Your task to perform on an android device: Open settings Image 0: 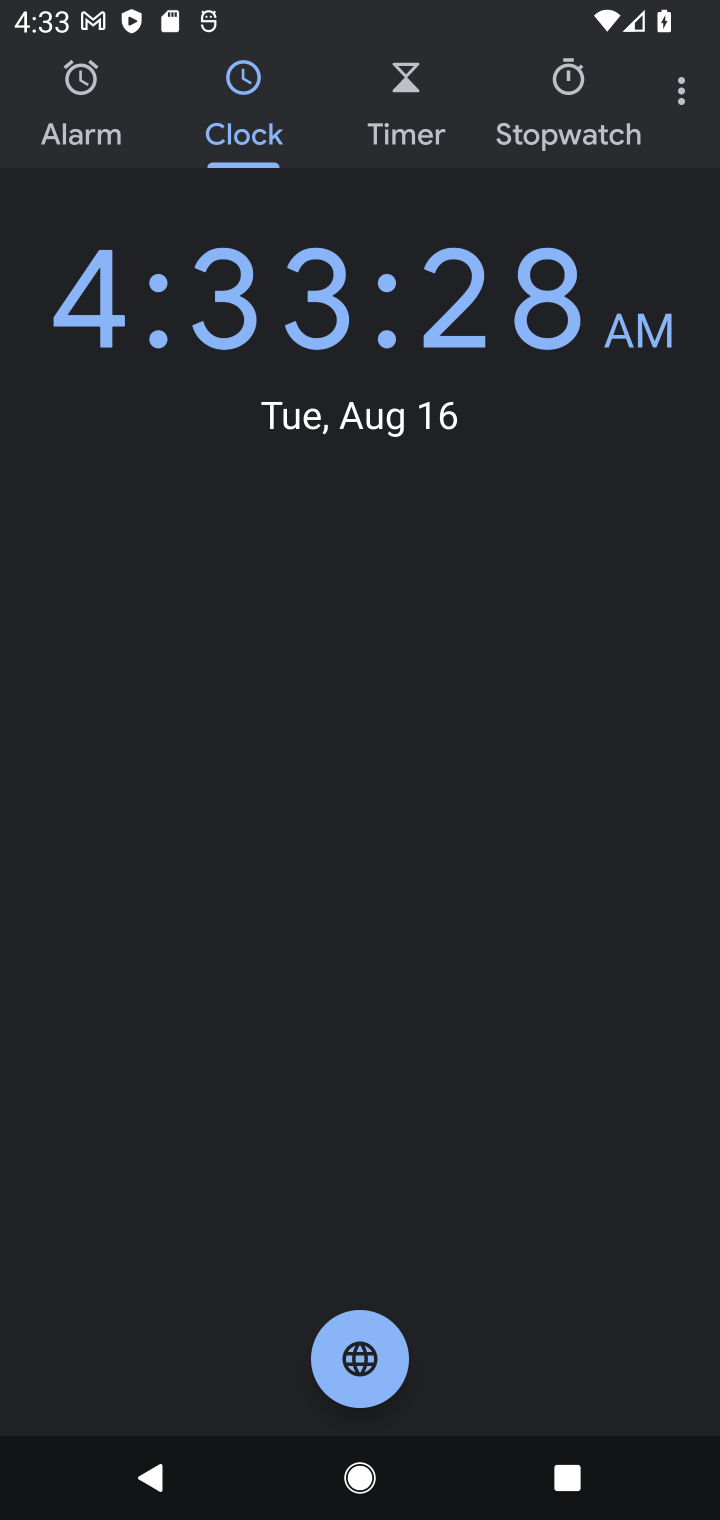
Step 0: press home button
Your task to perform on an android device: Open settings Image 1: 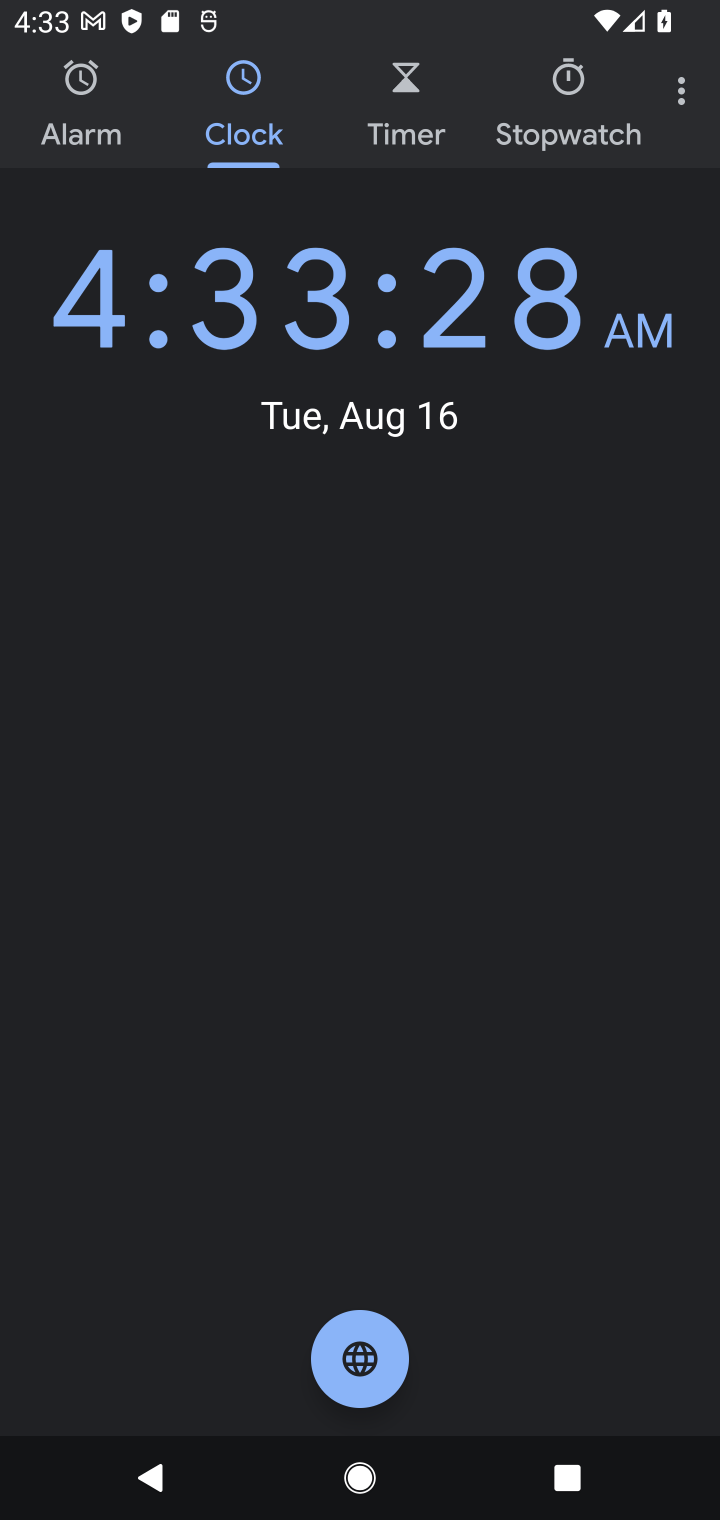
Step 1: press home button
Your task to perform on an android device: Open settings Image 2: 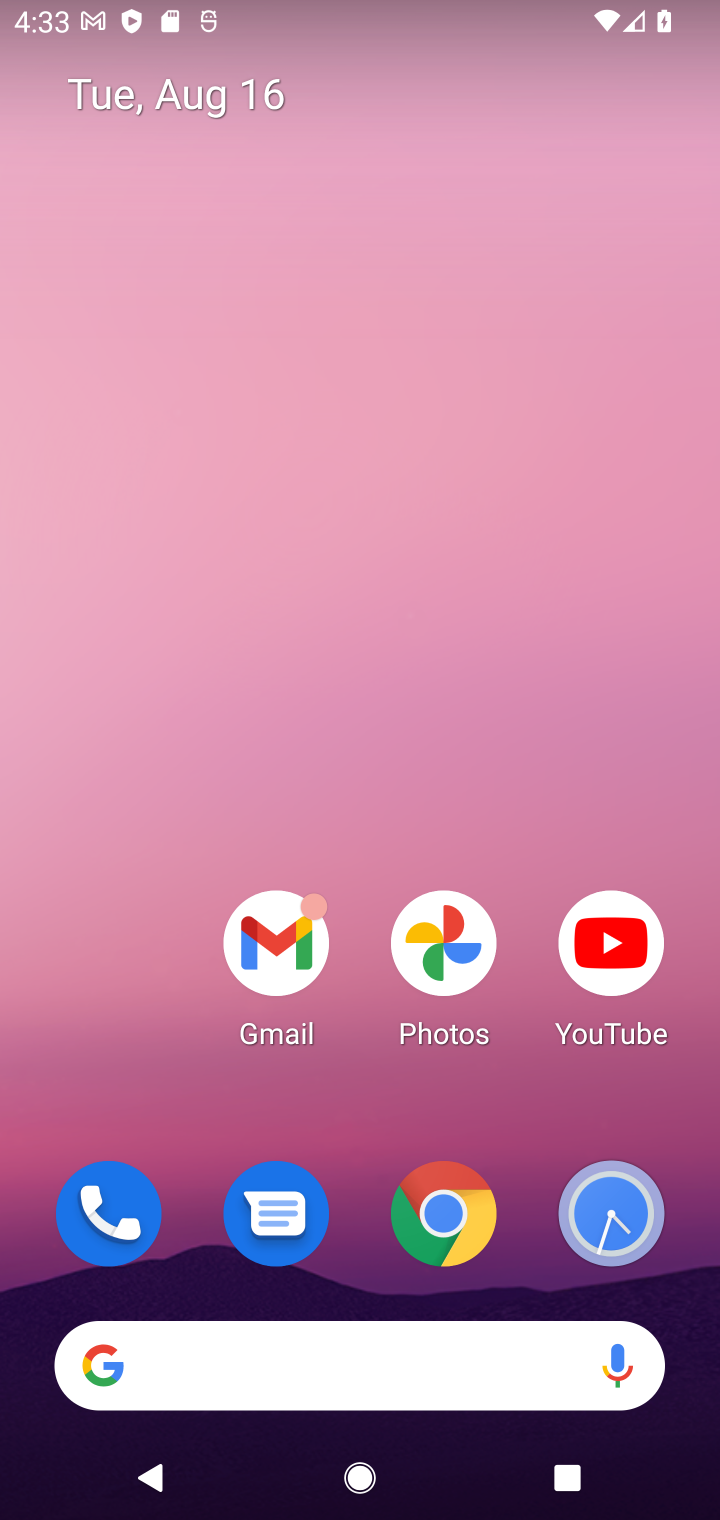
Step 2: drag from (353, 1114) to (428, 75)
Your task to perform on an android device: Open settings Image 3: 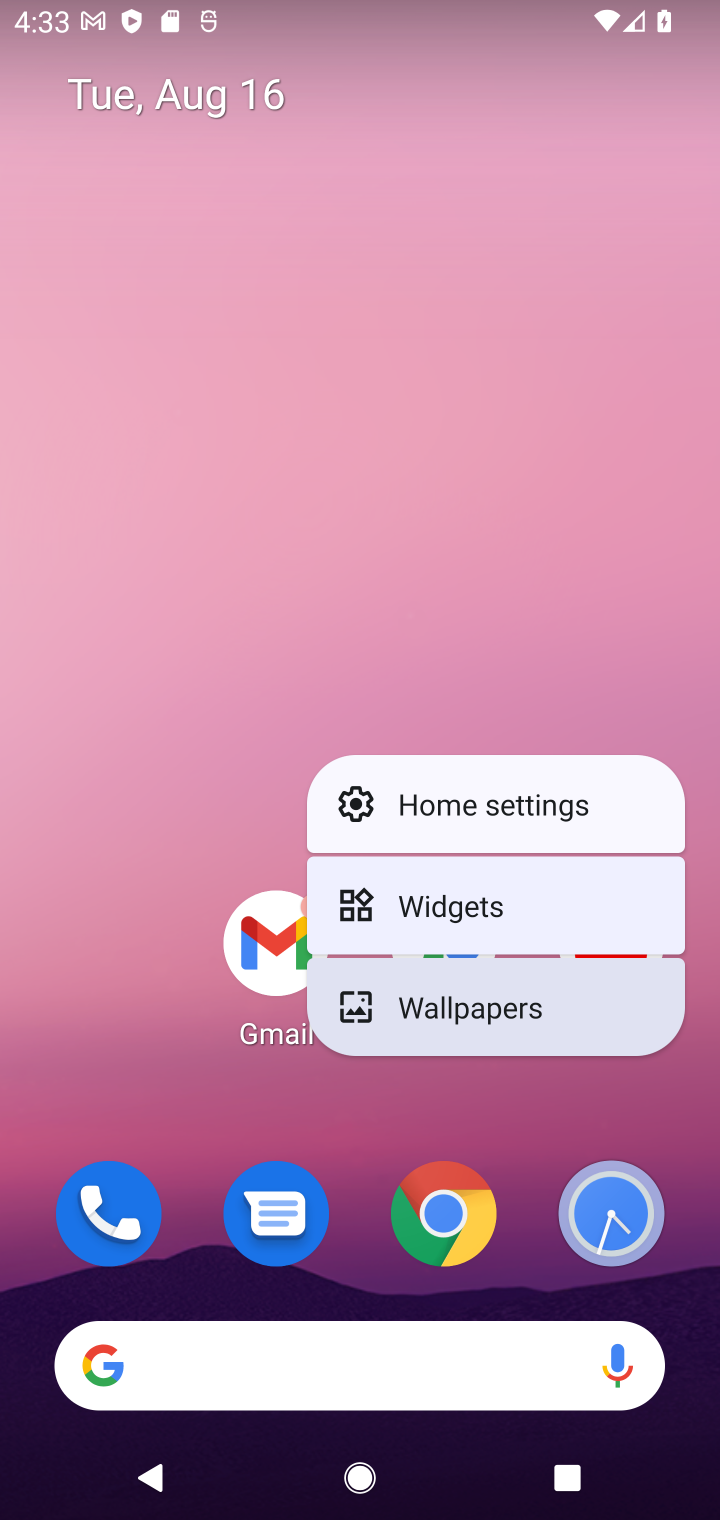
Step 3: click (238, 570)
Your task to perform on an android device: Open settings Image 4: 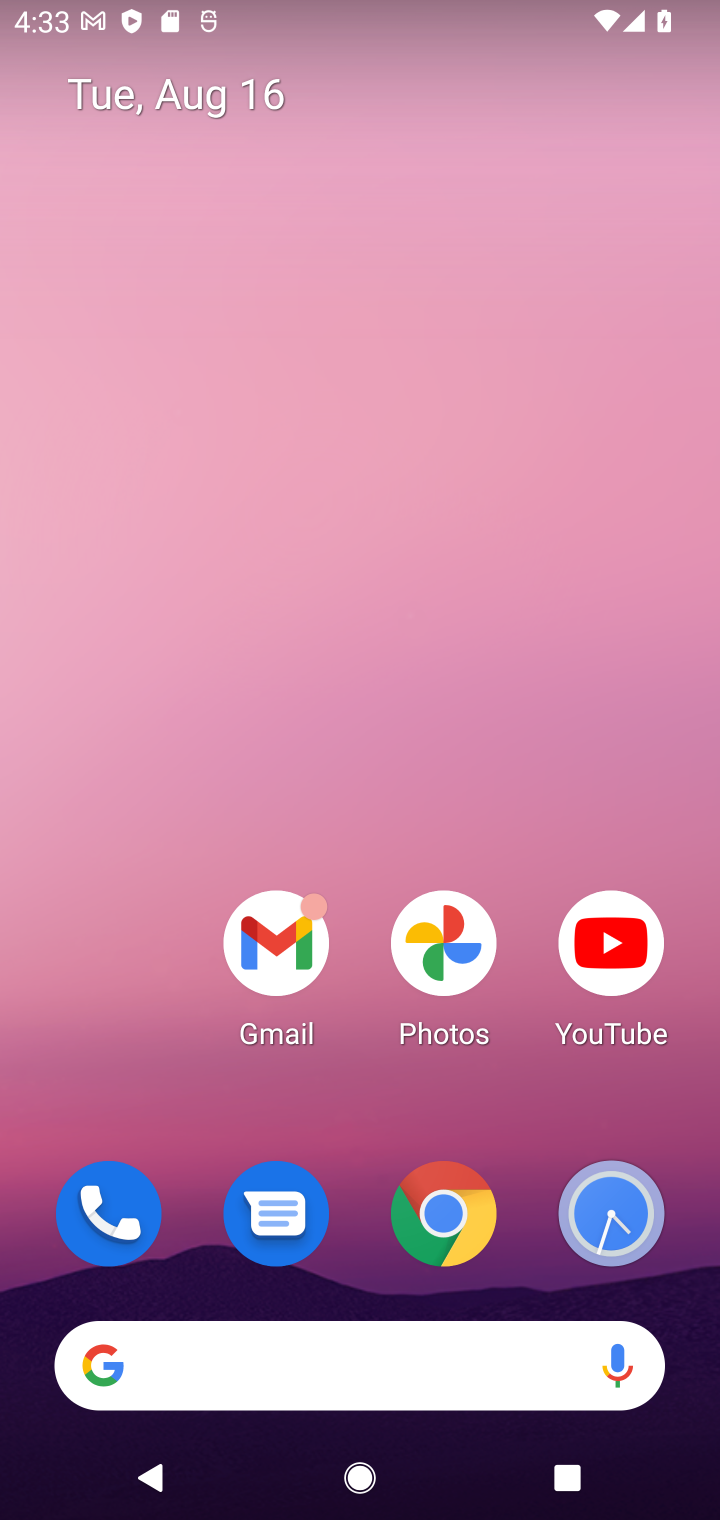
Step 4: drag from (203, 743) to (201, 40)
Your task to perform on an android device: Open settings Image 5: 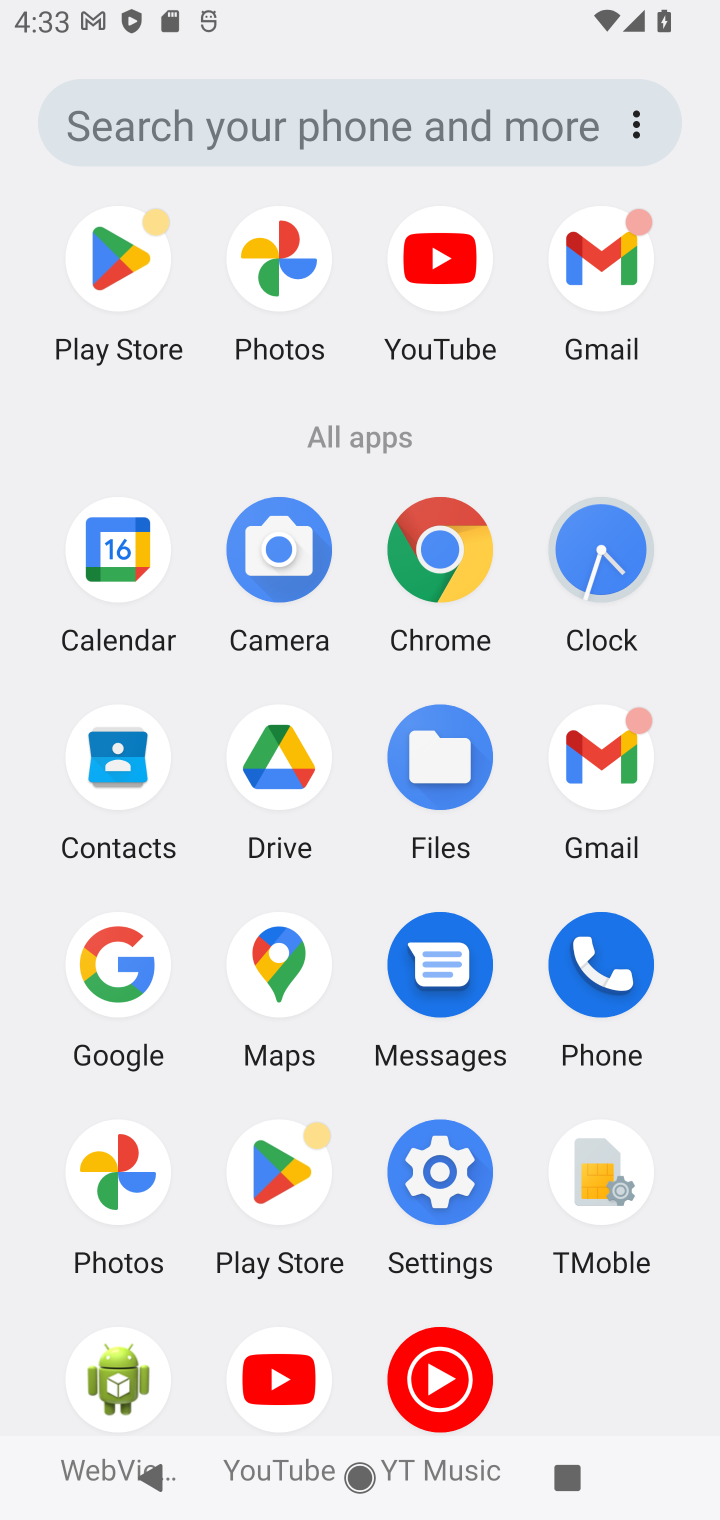
Step 5: click (437, 1174)
Your task to perform on an android device: Open settings Image 6: 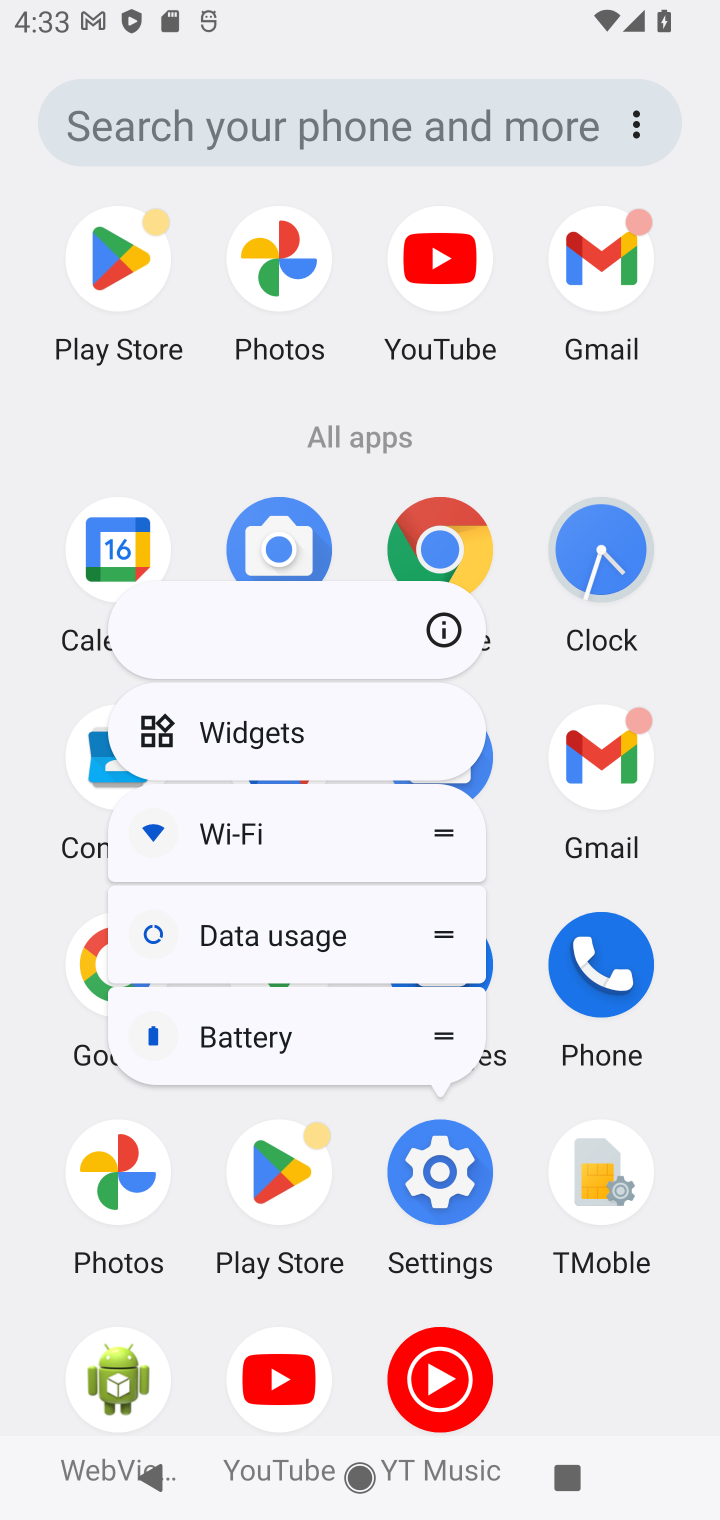
Step 6: click (435, 1165)
Your task to perform on an android device: Open settings Image 7: 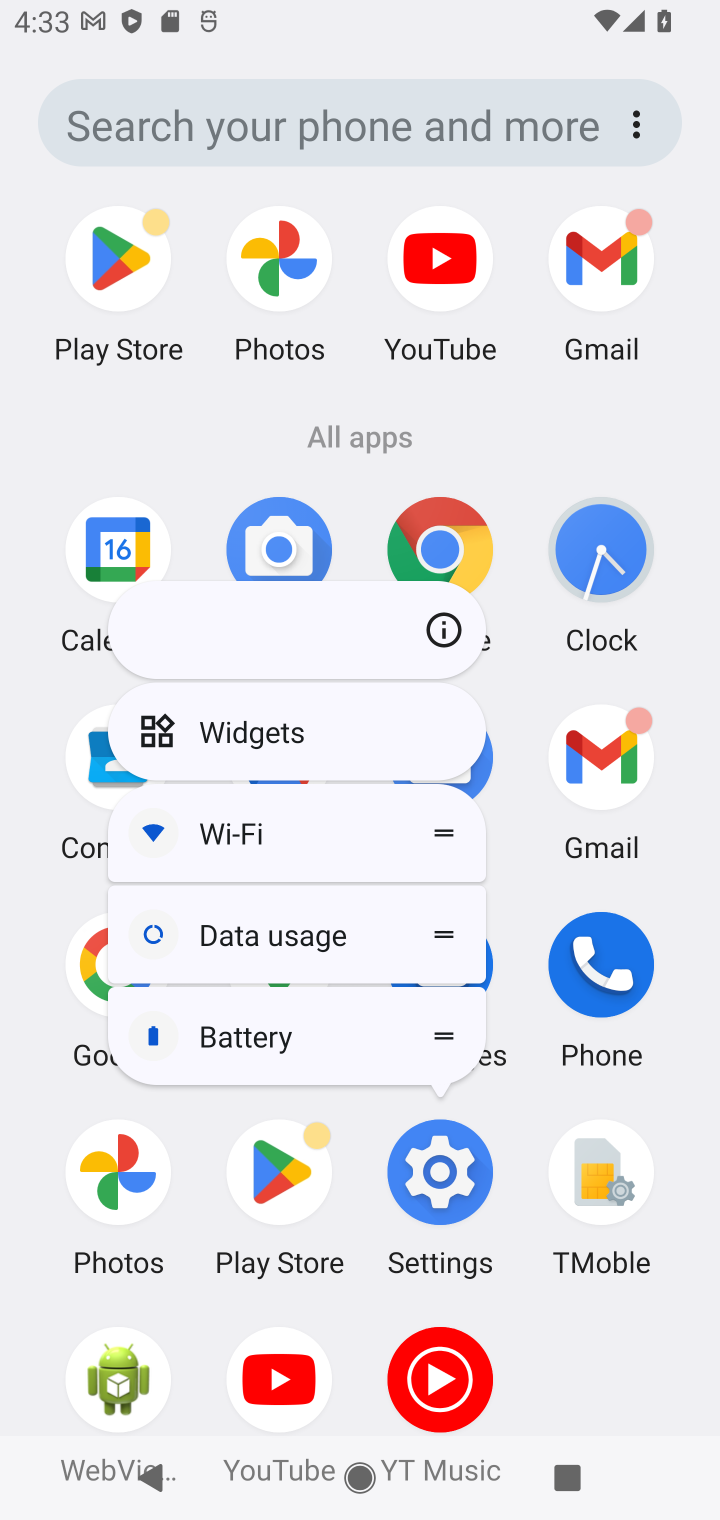
Step 7: click (437, 1167)
Your task to perform on an android device: Open settings Image 8: 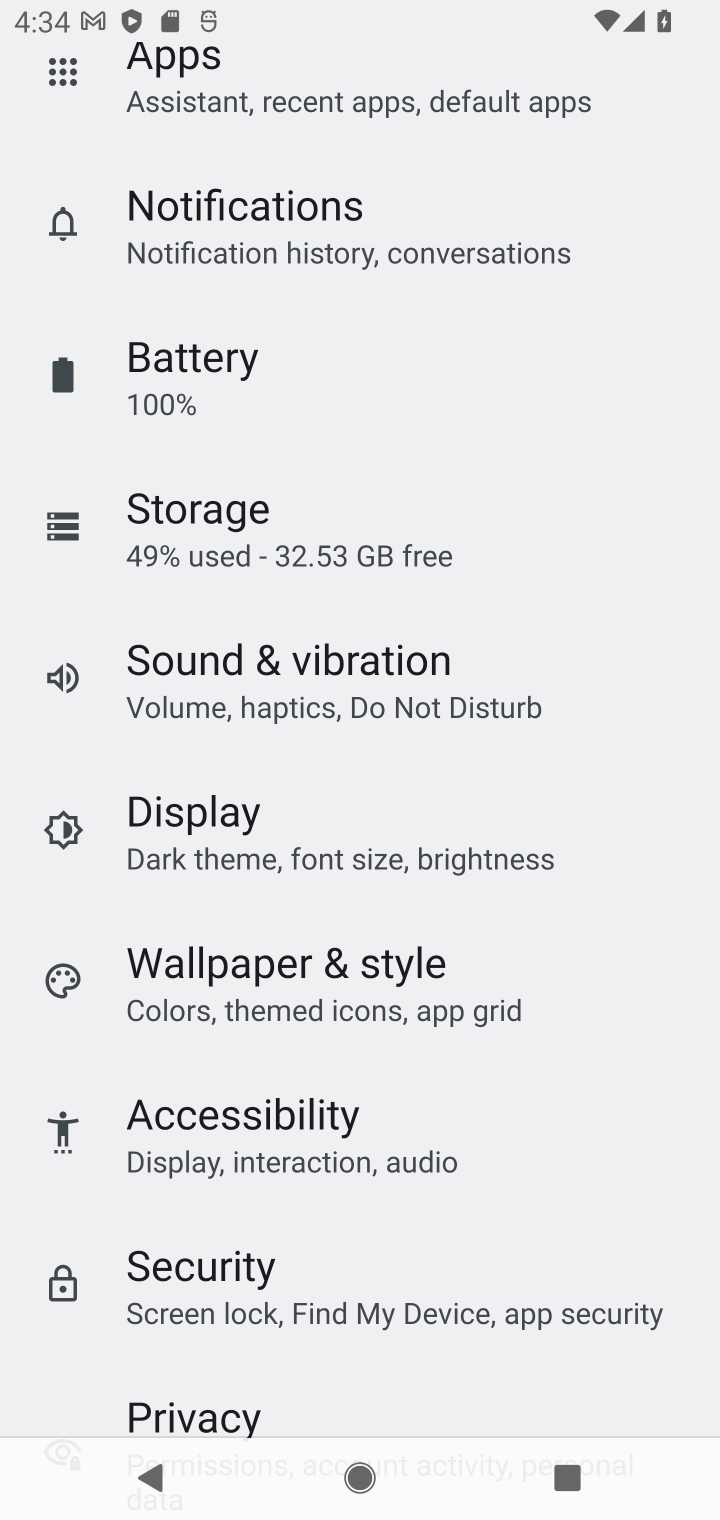
Step 8: task complete